Your task to perform on an android device: Open calendar and show me the fourth week of next month Image 0: 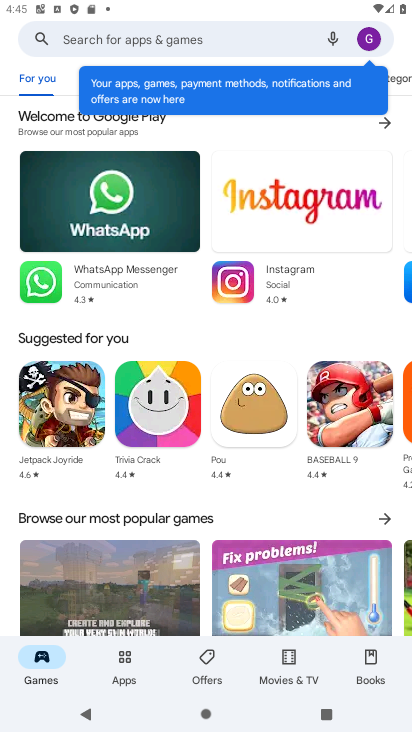
Step 0: press home button
Your task to perform on an android device: Open calendar and show me the fourth week of next month Image 1: 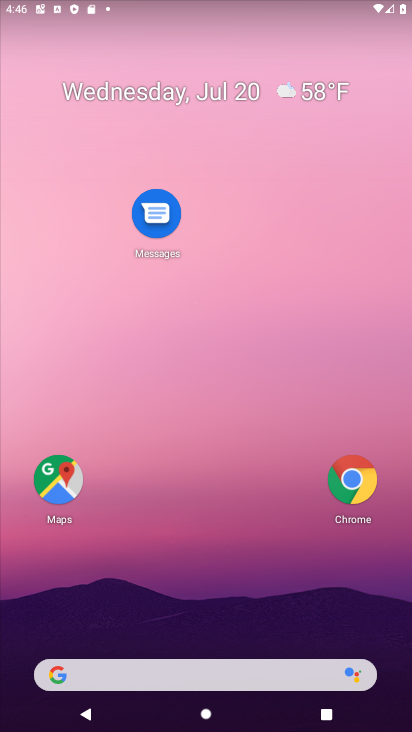
Step 1: drag from (214, 636) to (287, 21)
Your task to perform on an android device: Open calendar and show me the fourth week of next month Image 2: 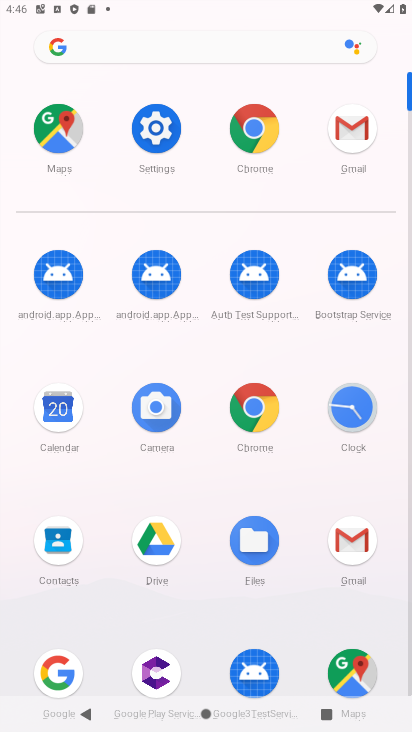
Step 2: click (59, 431)
Your task to perform on an android device: Open calendar and show me the fourth week of next month Image 3: 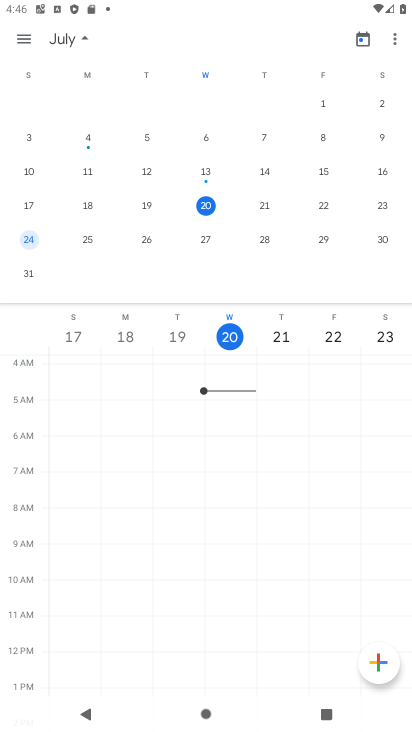
Step 3: click (71, 42)
Your task to perform on an android device: Open calendar and show me the fourth week of next month Image 4: 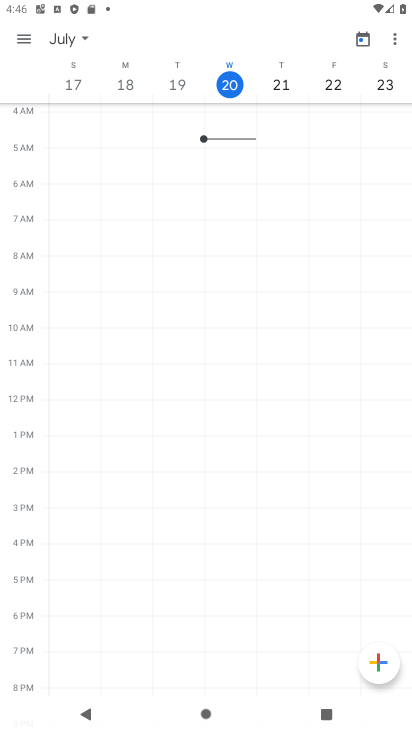
Step 4: click (71, 42)
Your task to perform on an android device: Open calendar and show me the fourth week of next month Image 5: 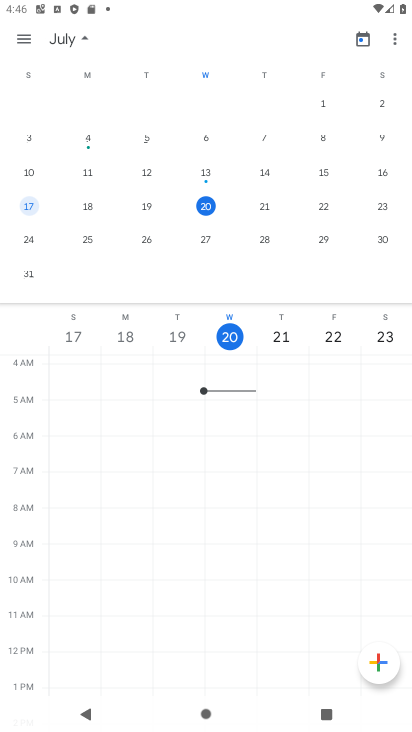
Step 5: drag from (366, 188) to (29, 172)
Your task to perform on an android device: Open calendar and show me the fourth week of next month Image 6: 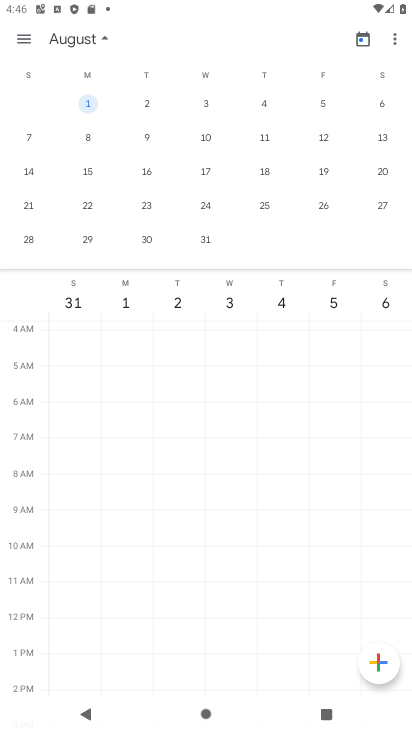
Step 6: click (27, 205)
Your task to perform on an android device: Open calendar and show me the fourth week of next month Image 7: 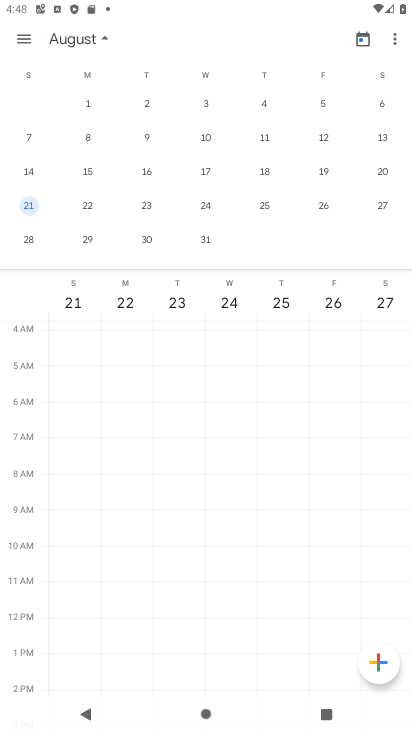
Step 7: task complete